Your task to perform on an android device: When is my next appointment? Image 0: 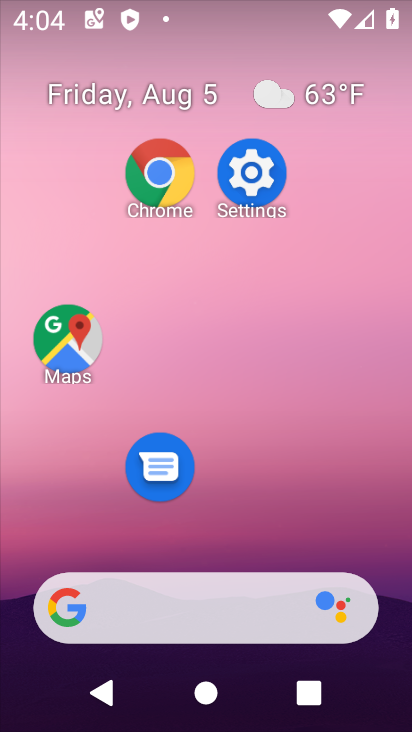
Step 0: drag from (221, 524) to (248, 47)
Your task to perform on an android device: When is my next appointment? Image 1: 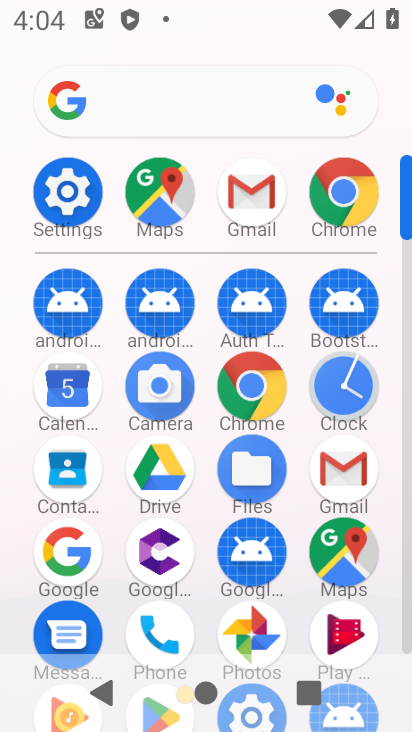
Step 1: click (68, 392)
Your task to perform on an android device: When is my next appointment? Image 2: 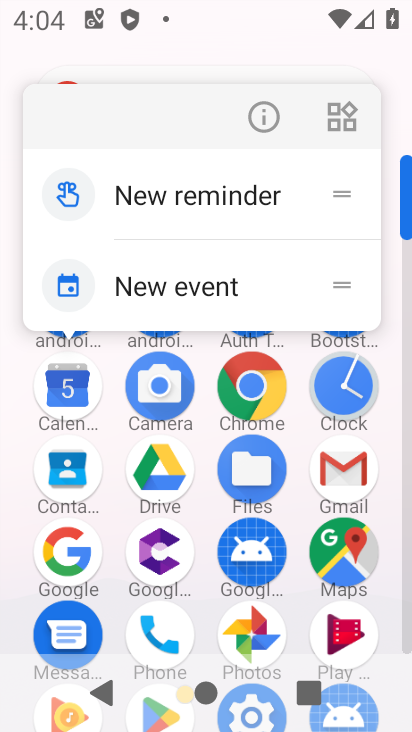
Step 2: click (68, 392)
Your task to perform on an android device: When is my next appointment? Image 3: 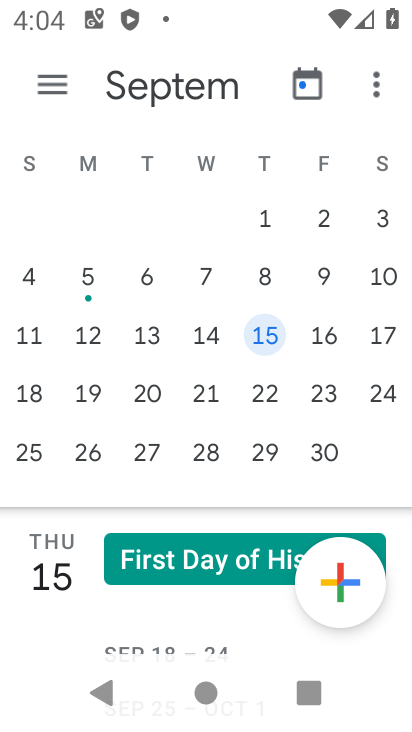
Step 3: drag from (114, 250) to (367, 211)
Your task to perform on an android device: When is my next appointment? Image 4: 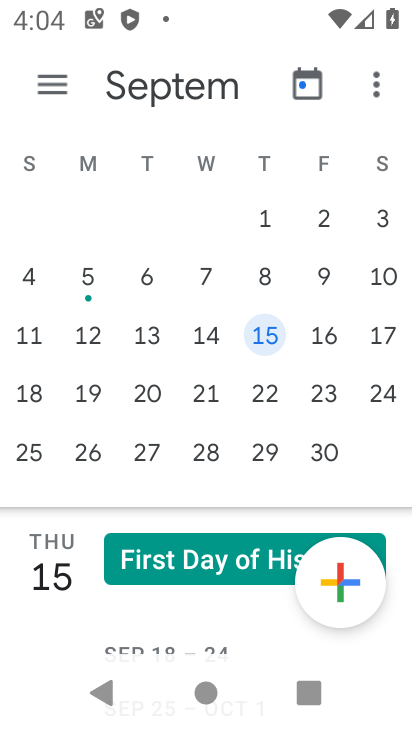
Step 4: drag from (168, 246) to (399, 251)
Your task to perform on an android device: When is my next appointment? Image 5: 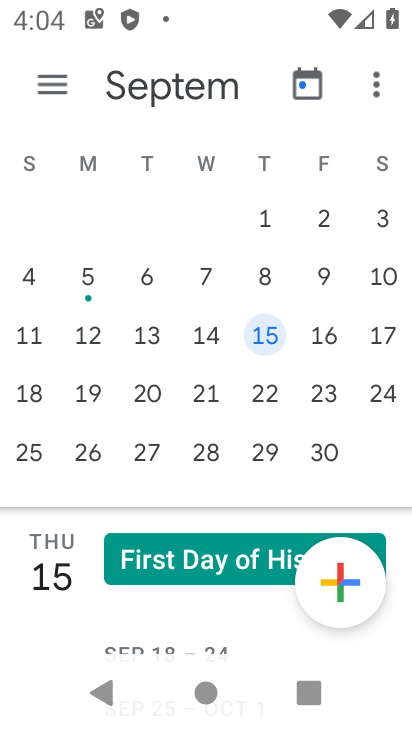
Step 5: drag from (39, 302) to (398, 309)
Your task to perform on an android device: When is my next appointment? Image 6: 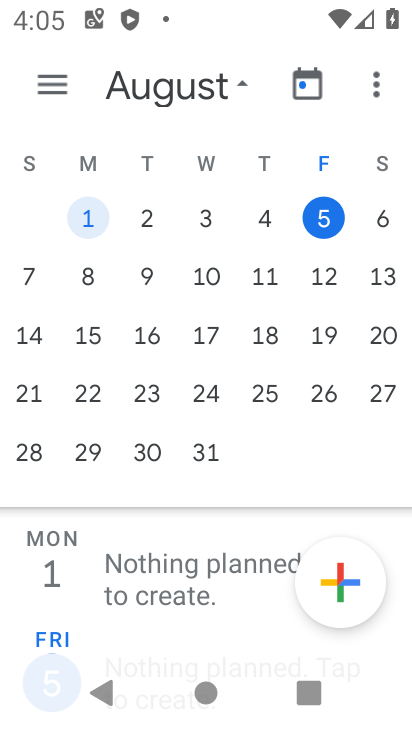
Step 6: click (381, 201)
Your task to perform on an android device: When is my next appointment? Image 7: 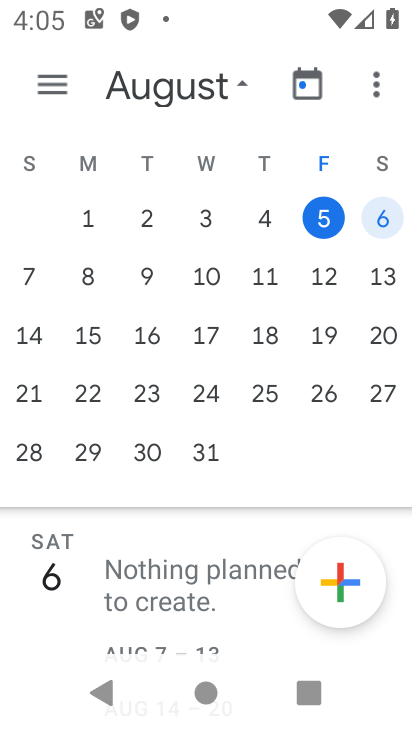
Step 7: task complete